Your task to perform on an android device: Open network settings Image 0: 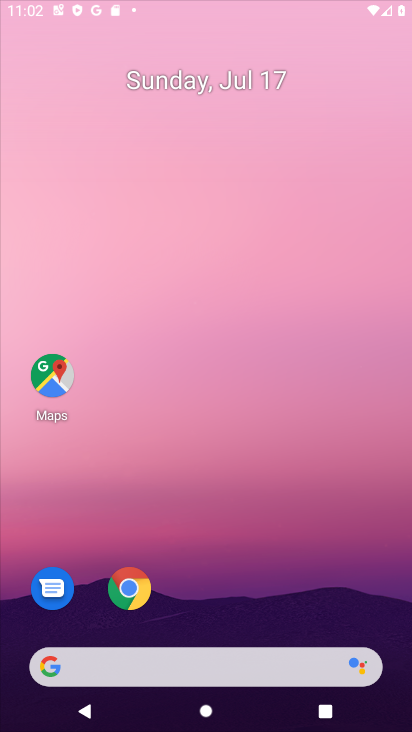
Step 0: press home button
Your task to perform on an android device: Open network settings Image 1: 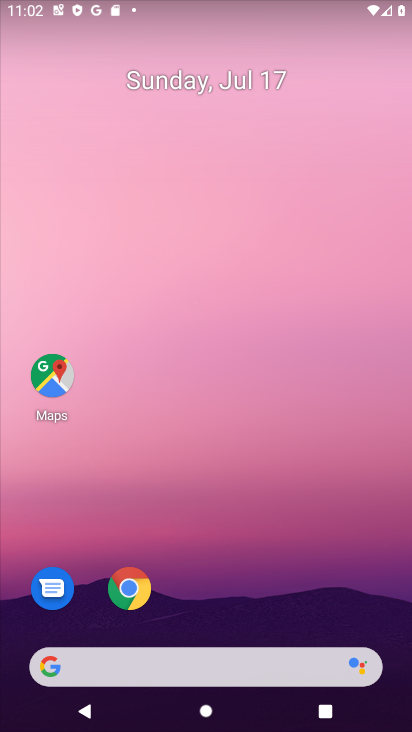
Step 1: drag from (213, 610) to (214, 62)
Your task to perform on an android device: Open network settings Image 2: 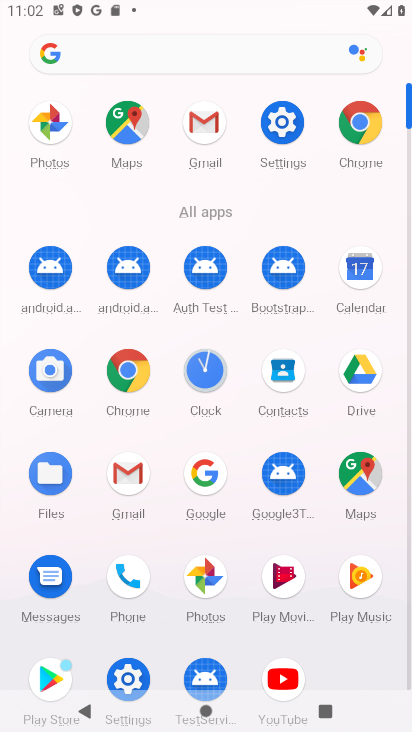
Step 2: click (280, 117)
Your task to perform on an android device: Open network settings Image 3: 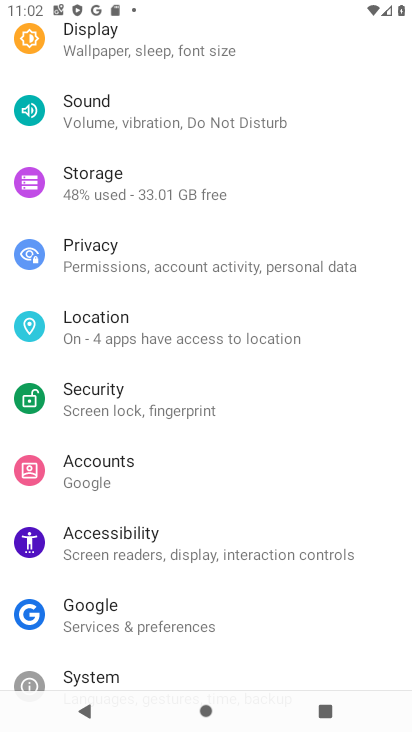
Step 3: drag from (152, 88) to (167, 621)
Your task to perform on an android device: Open network settings Image 4: 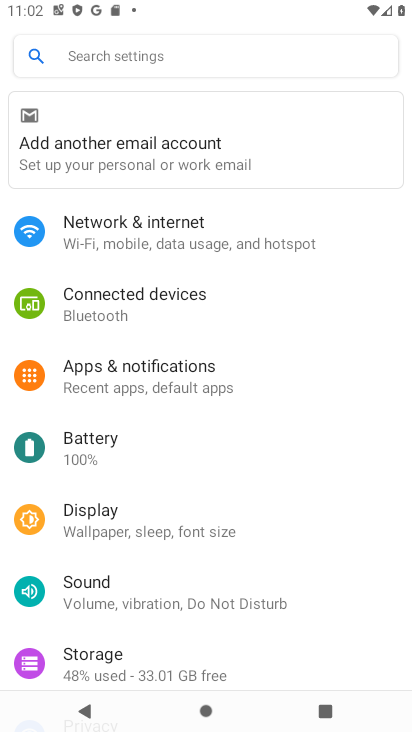
Step 4: click (210, 221)
Your task to perform on an android device: Open network settings Image 5: 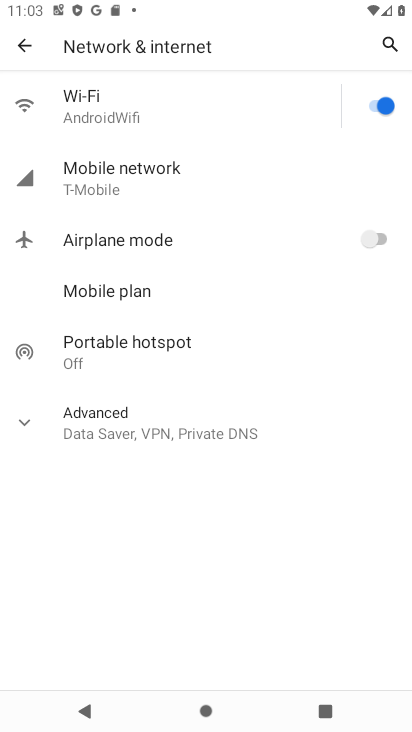
Step 5: click (17, 417)
Your task to perform on an android device: Open network settings Image 6: 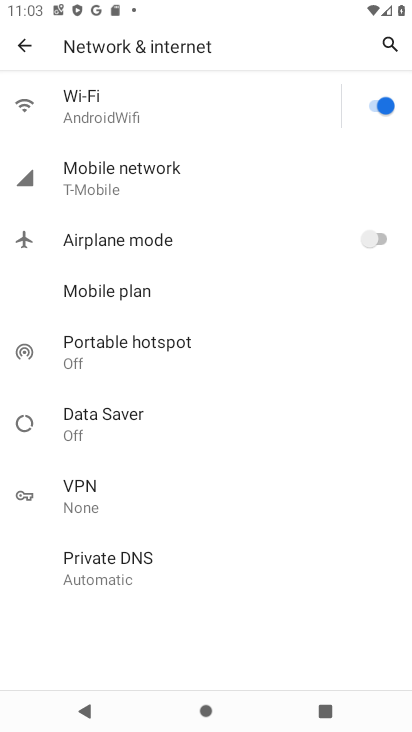
Step 6: task complete